Your task to perform on an android device: Find coffee shops on Maps Image 0: 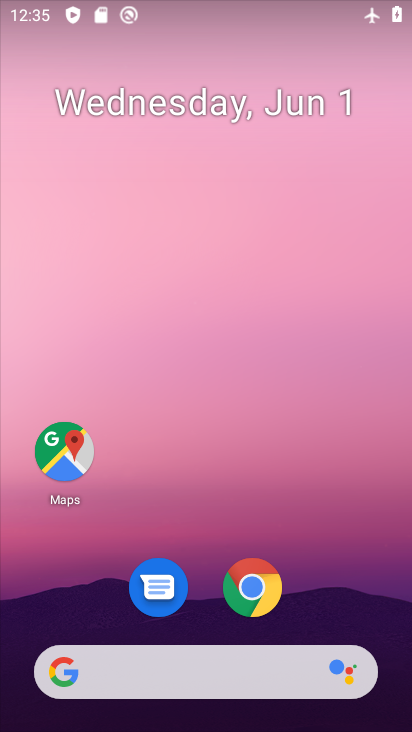
Step 0: click (67, 459)
Your task to perform on an android device: Find coffee shops on Maps Image 1: 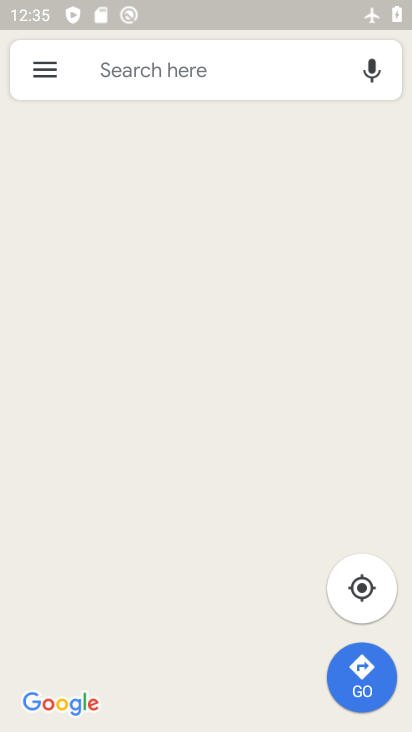
Step 1: click (185, 76)
Your task to perform on an android device: Find coffee shops on Maps Image 2: 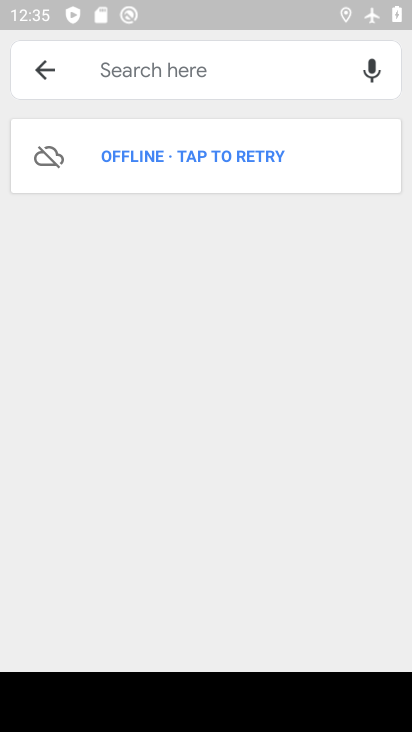
Step 2: type "coffee"
Your task to perform on an android device: Find coffee shops on Maps Image 3: 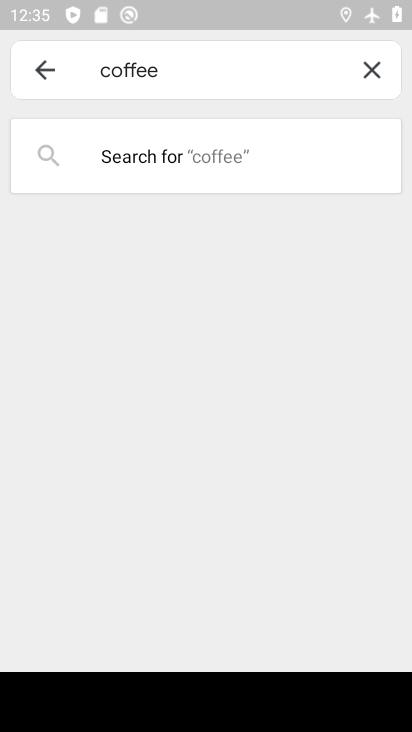
Step 3: task complete